Your task to perform on an android device: turn off location history Image 0: 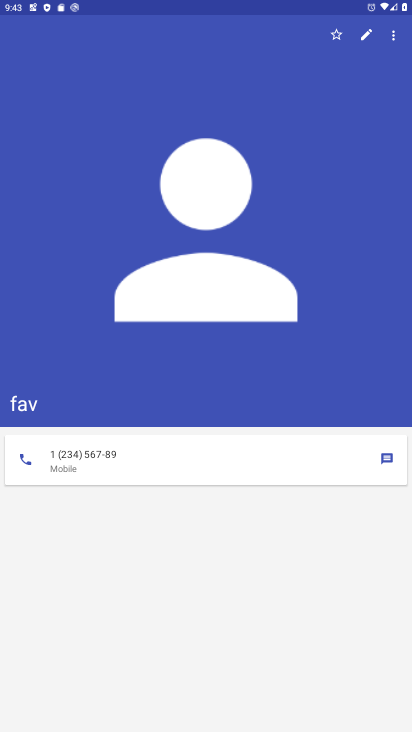
Step 0: press home button
Your task to perform on an android device: turn off location history Image 1: 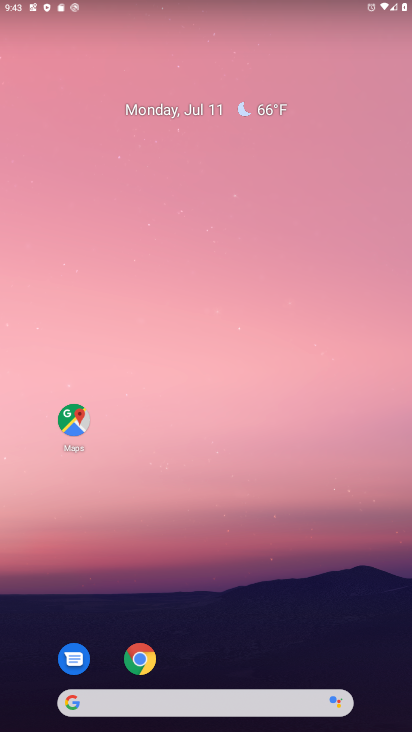
Step 1: drag from (351, 616) to (349, 127)
Your task to perform on an android device: turn off location history Image 2: 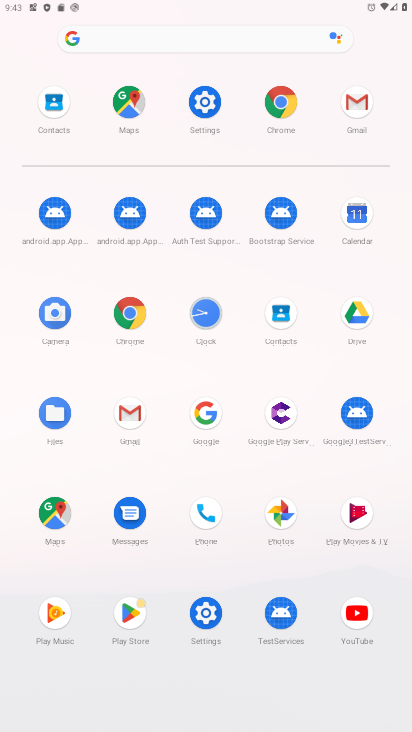
Step 2: click (202, 610)
Your task to perform on an android device: turn off location history Image 3: 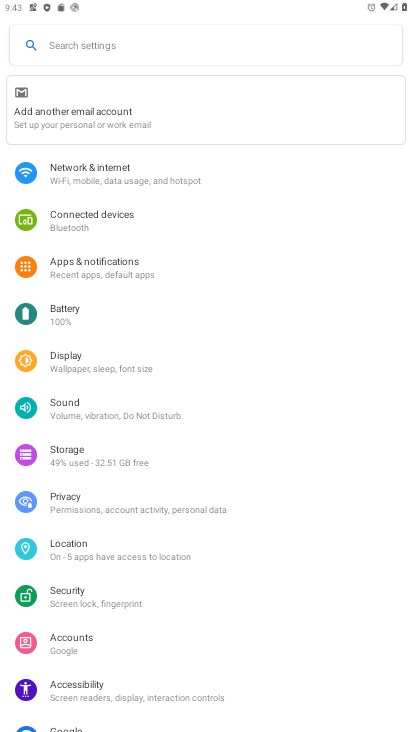
Step 3: click (190, 547)
Your task to perform on an android device: turn off location history Image 4: 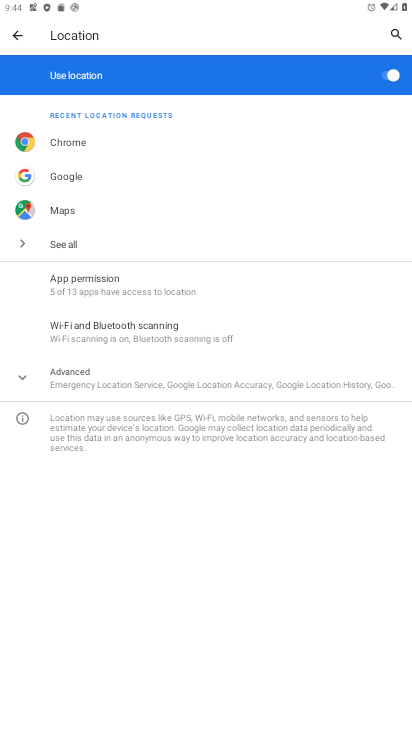
Step 4: click (203, 382)
Your task to perform on an android device: turn off location history Image 5: 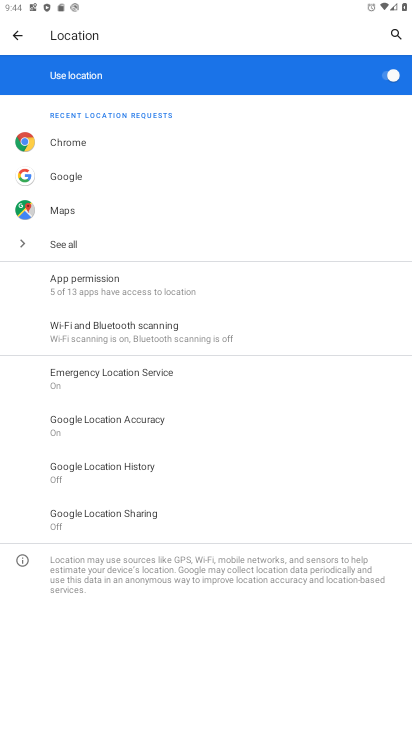
Step 5: task complete